Your task to perform on an android device: allow notifications from all sites in the chrome app Image 0: 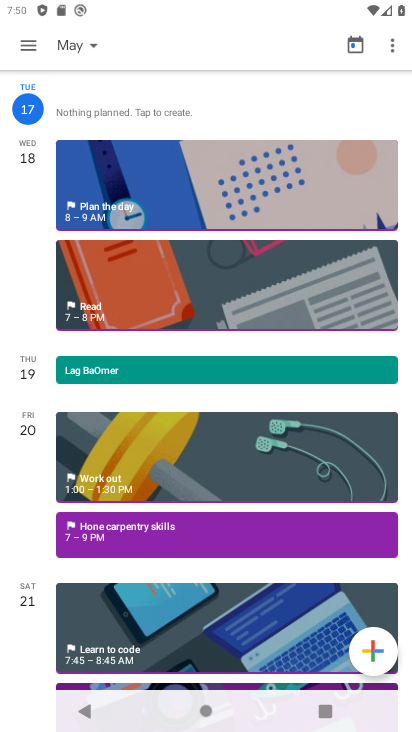
Step 0: press home button
Your task to perform on an android device: allow notifications from all sites in the chrome app Image 1: 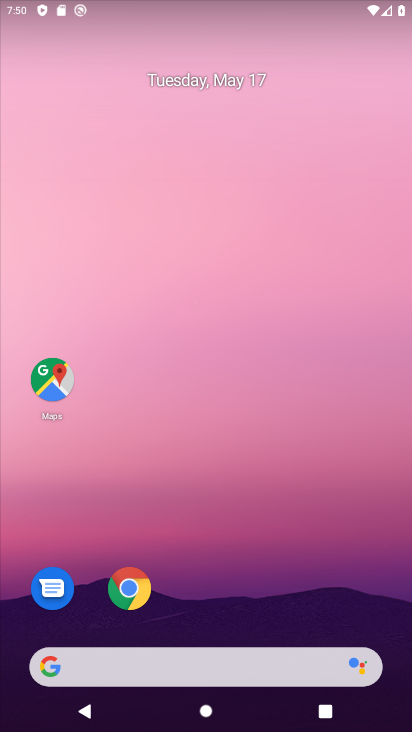
Step 1: click (130, 576)
Your task to perform on an android device: allow notifications from all sites in the chrome app Image 2: 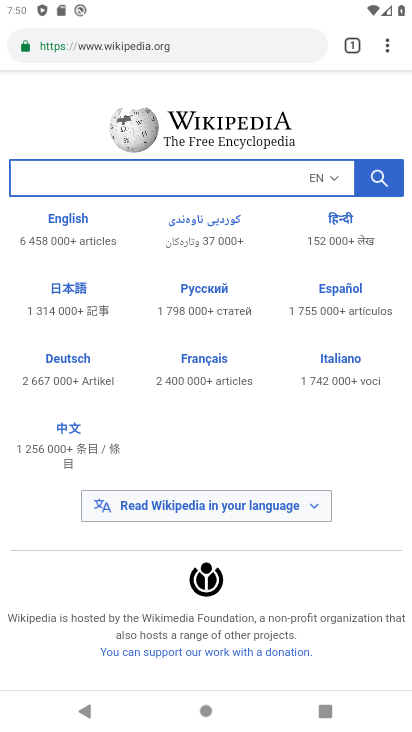
Step 2: click (388, 38)
Your task to perform on an android device: allow notifications from all sites in the chrome app Image 3: 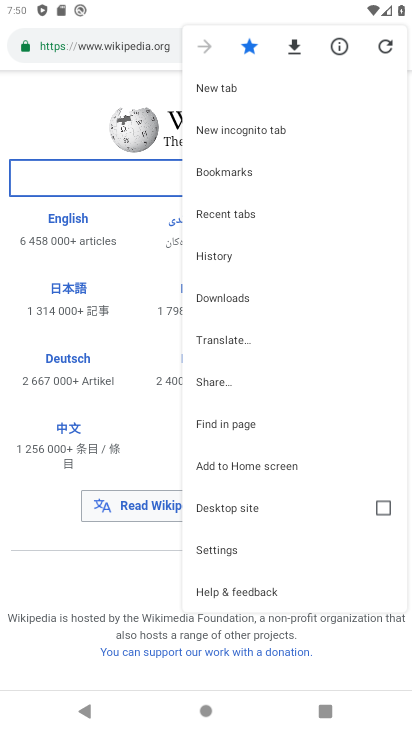
Step 3: click (214, 544)
Your task to perform on an android device: allow notifications from all sites in the chrome app Image 4: 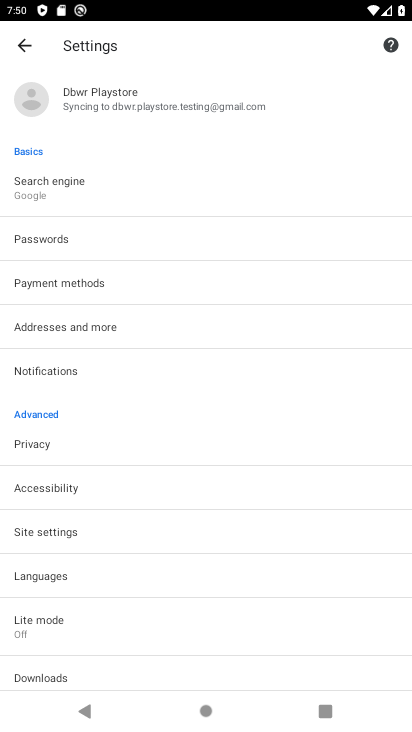
Step 4: click (47, 529)
Your task to perform on an android device: allow notifications from all sites in the chrome app Image 5: 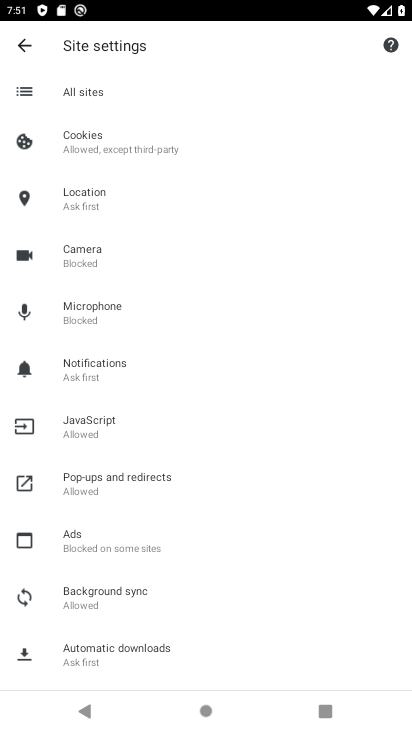
Step 5: click (78, 361)
Your task to perform on an android device: allow notifications from all sites in the chrome app Image 6: 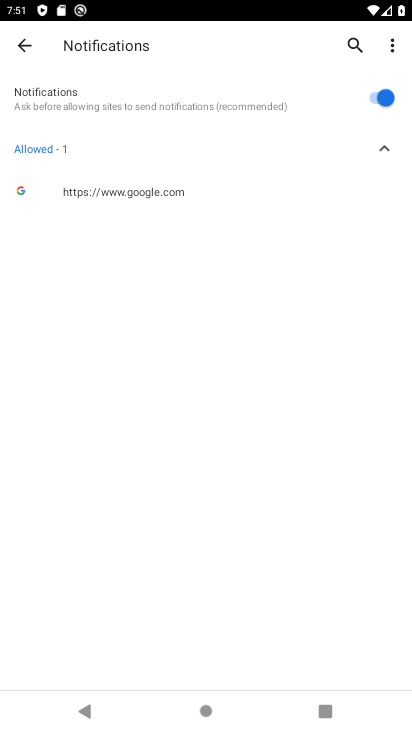
Step 6: task complete